Your task to perform on an android device: turn on location history Image 0: 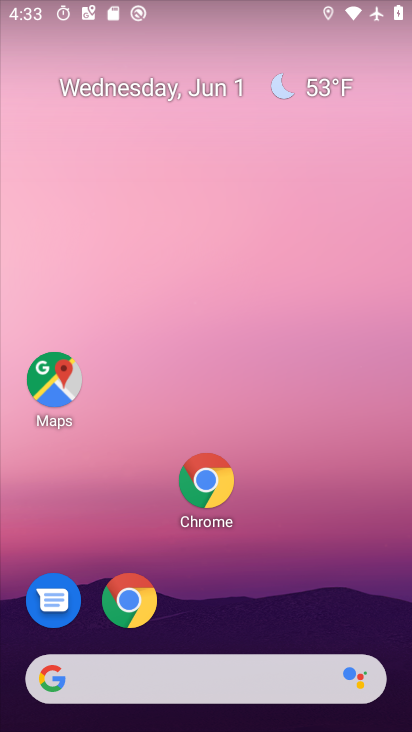
Step 0: drag from (324, 655) to (287, 258)
Your task to perform on an android device: turn on location history Image 1: 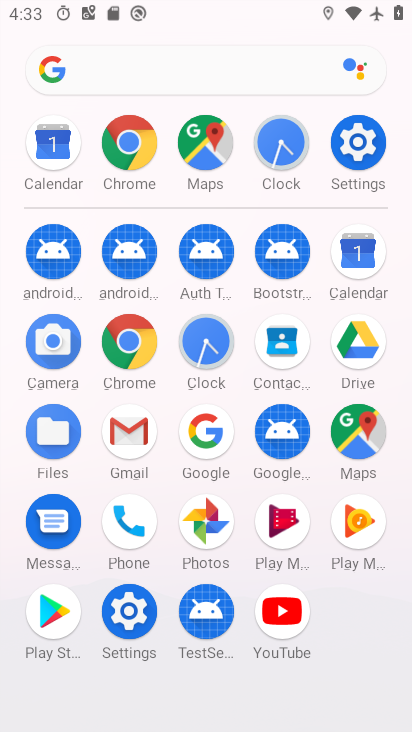
Step 1: click (366, 423)
Your task to perform on an android device: turn on location history Image 2: 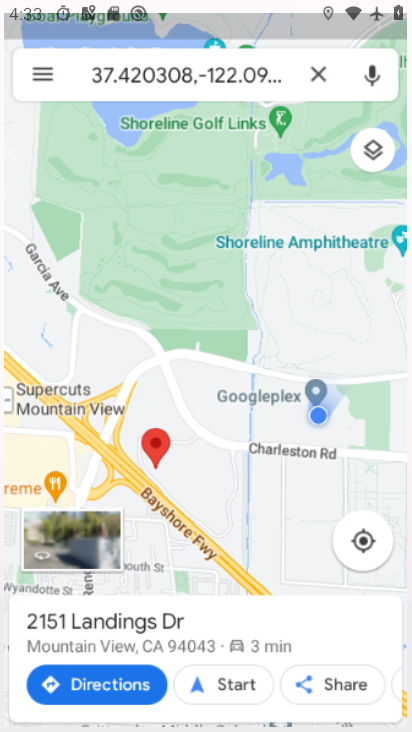
Step 2: click (352, 432)
Your task to perform on an android device: turn on location history Image 3: 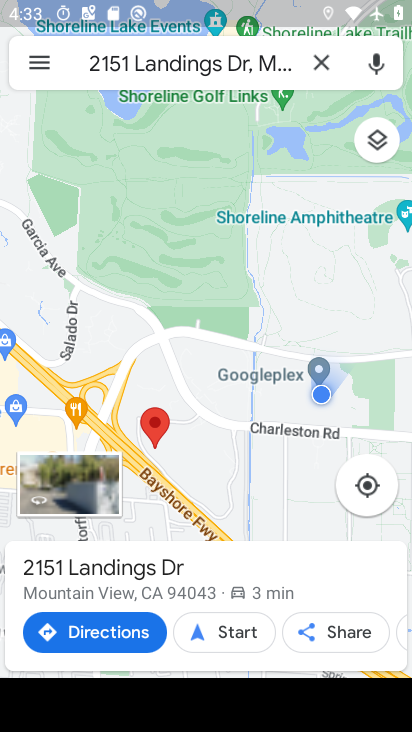
Step 3: click (308, 60)
Your task to perform on an android device: turn on location history Image 4: 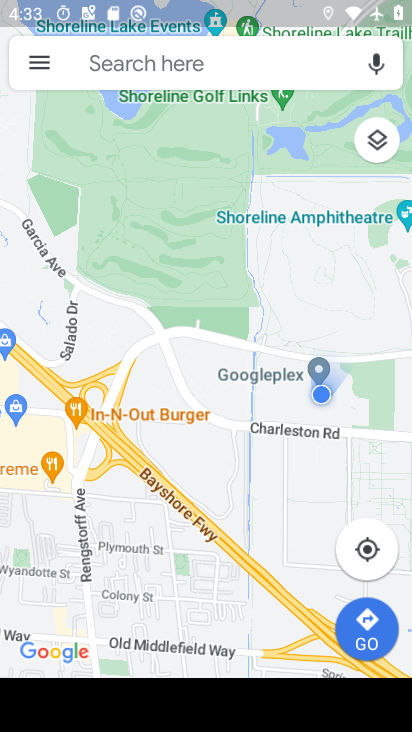
Step 4: click (80, 67)
Your task to perform on an android device: turn on location history Image 5: 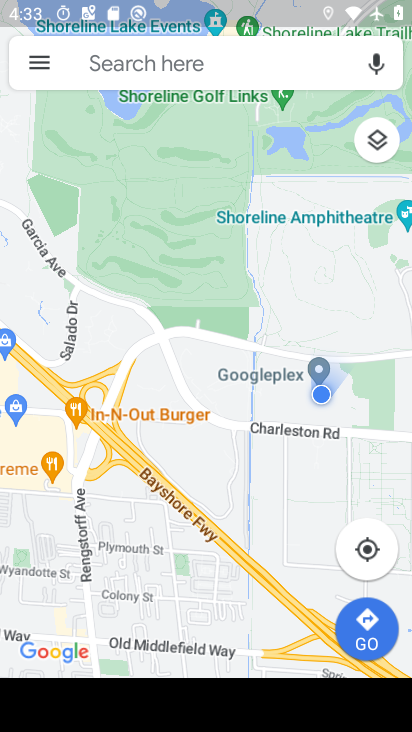
Step 5: click (80, 67)
Your task to perform on an android device: turn on location history Image 6: 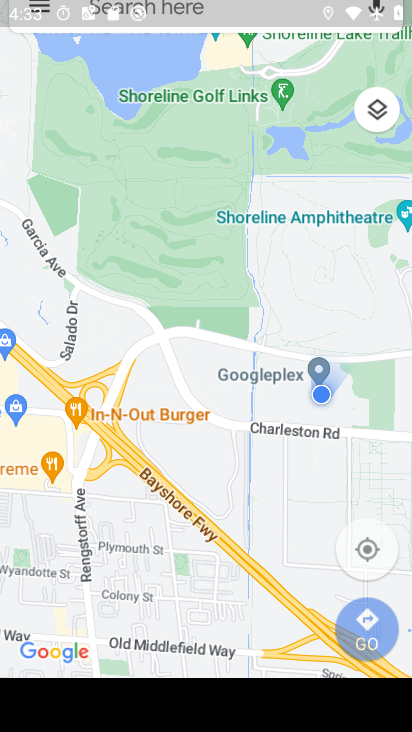
Step 6: click (81, 67)
Your task to perform on an android device: turn on location history Image 7: 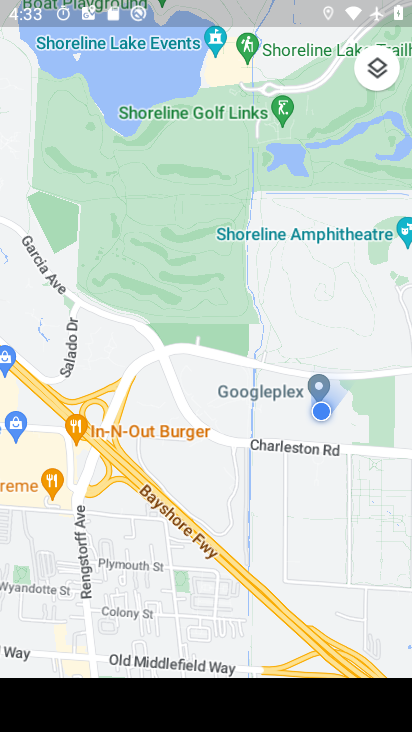
Step 7: drag from (109, 119) to (212, 396)
Your task to perform on an android device: turn on location history Image 8: 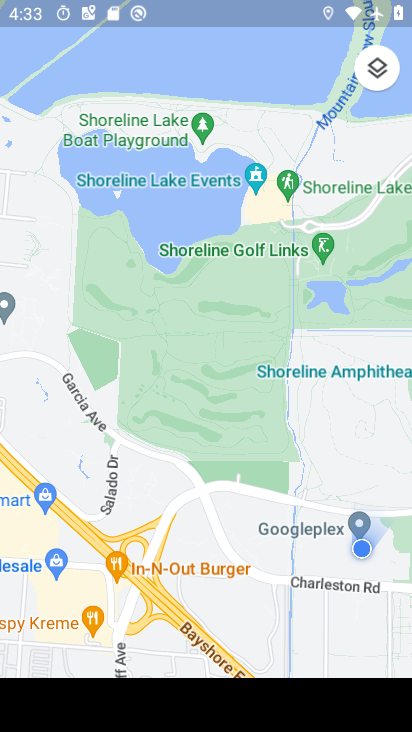
Step 8: drag from (188, 209) to (198, 418)
Your task to perform on an android device: turn on location history Image 9: 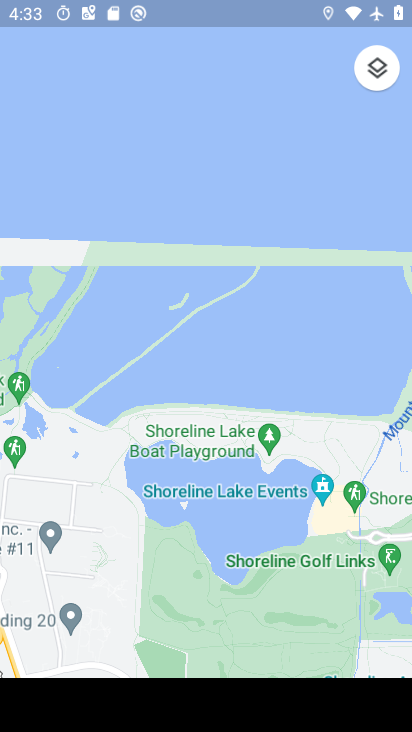
Step 9: drag from (172, 289) to (188, 416)
Your task to perform on an android device: turn on location history Image 10: 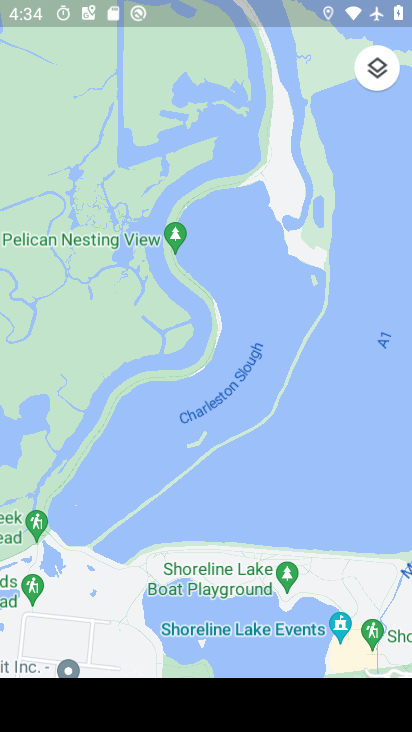
Step 10: drag from (152, 150) to (237, 590)
Your task to perform on an android device: turn on location history Image 11: 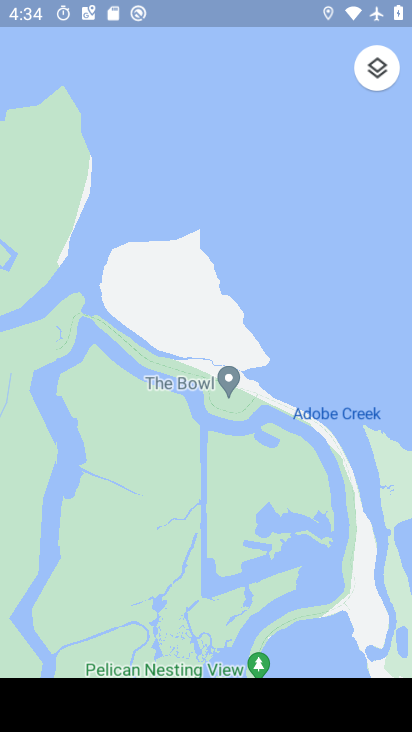
Step 11: drag from (220, 523) to (260, 602)
Your task to perform on an android device: turn on location history Image 12: 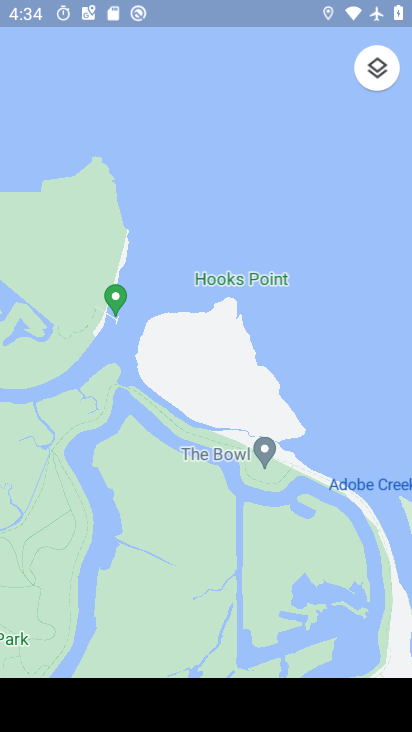
Step 12: drag from (159, 195) to (209, 377)
Your task to perform on an android device: turn on location history Image 13: 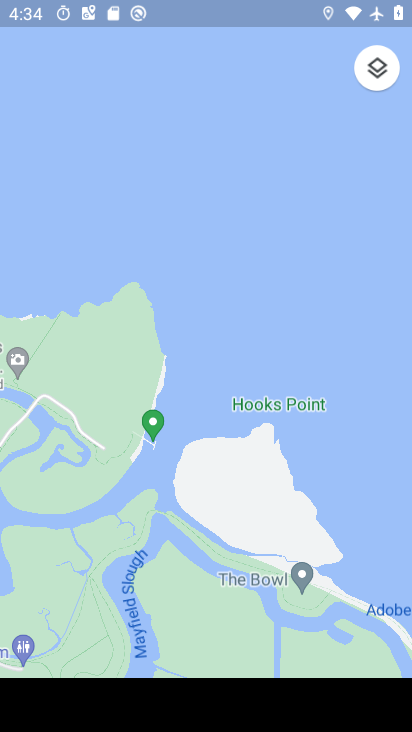
Step 13: drag from (171, 279) to (214, 450)
Your task to perform on an android device: turn on location history Image 14: 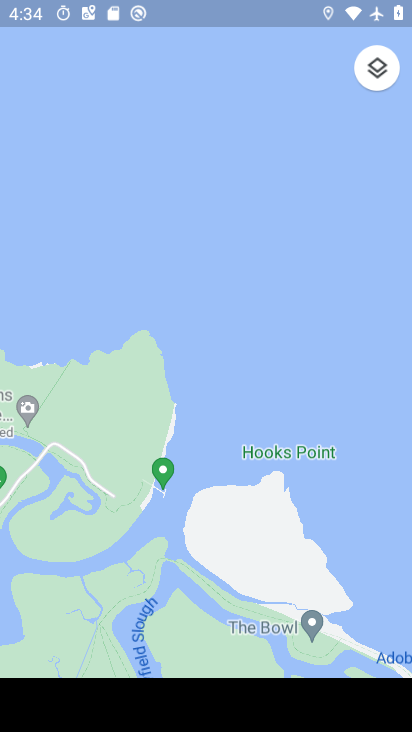
Step 14: drag from (115, 147) to (211, 404)
Your task to perform on an android device: turn on location history Image 15: 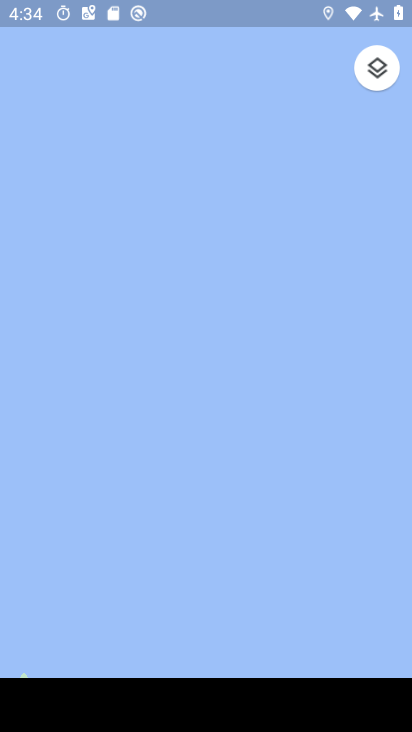
Step 15: drag from (137, 161) to (166, 547)
Your task to perform on an android device: turn on location history Image 16: 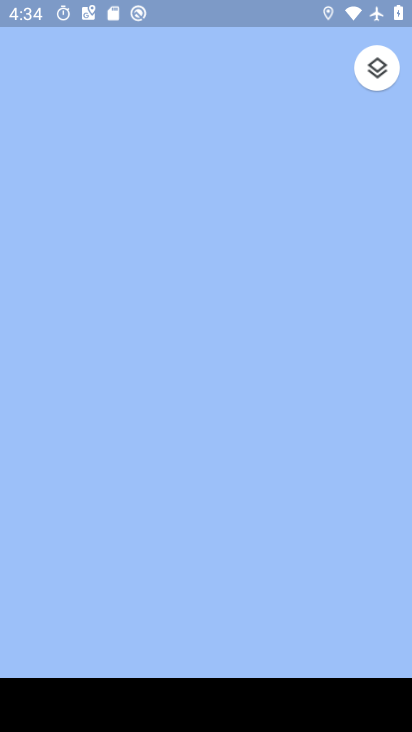
Step 16: drag from (131, 299) to (169, 605)
Your task to perform on an android device: turn on location history Image 17: 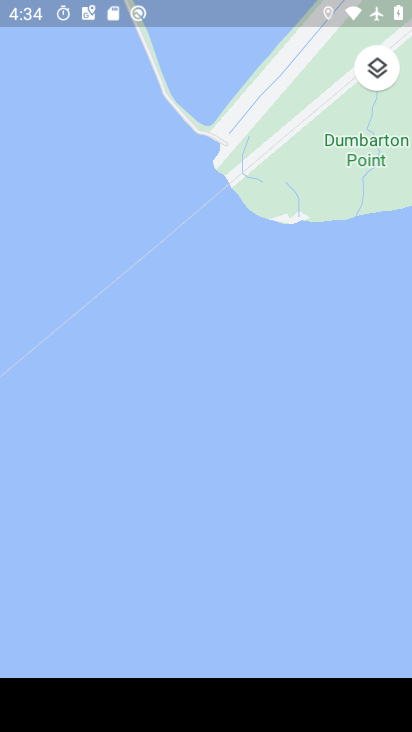
Step 17: drag from (57, 144) to (219, 567)
Your task to perform on an android device: turn on location history Image 18: 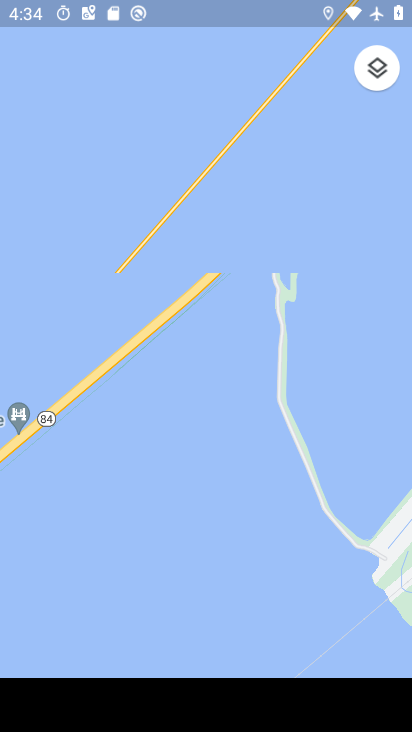
Step 18: drag from (217, 440) to (217, 653)
Your task to perform on an android device: turn on location history Image 19: 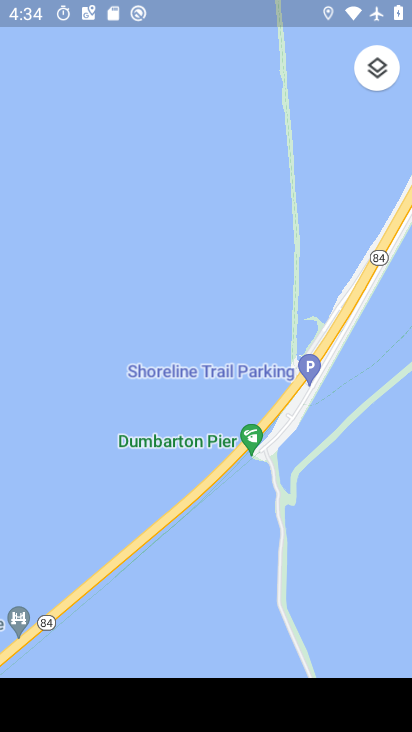
Step 19: drag from (104, 322) to (153, 636)
Your task to perform on an android device: turn on location history Image 20: 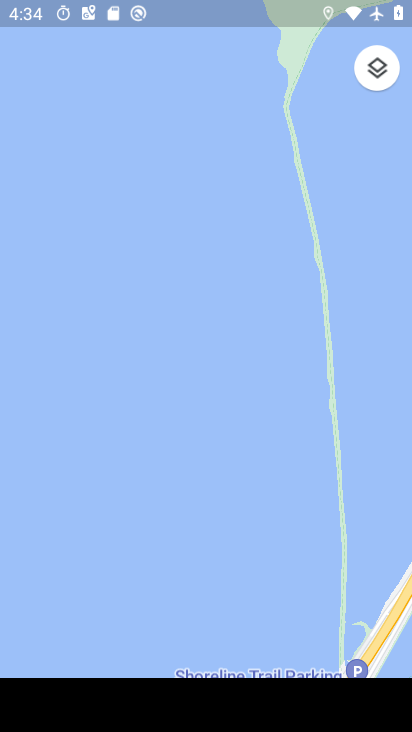
Step 20: drag from (125, 459) to (146, 522)
Your task to perform on an android device: turn on location history Image 21: 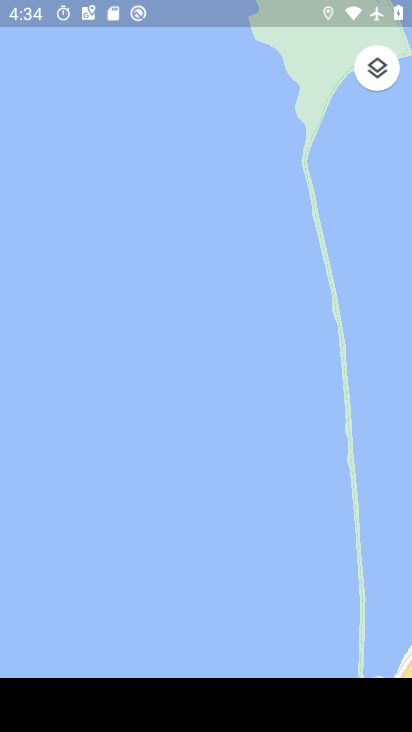
Step 21: drag from (107, 145) to (250, 527)
Your task to perform on an android device: turn on location history Image 22: 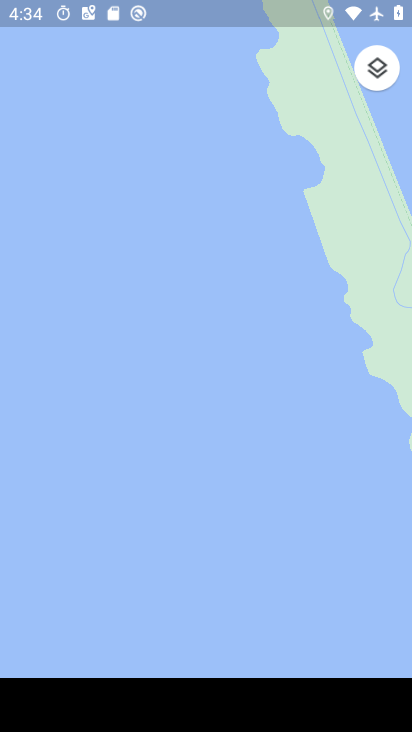
Step 22: drag from (186, 154) to (301, 474)
Your task to perform on an android device: turn on location history Image 23: 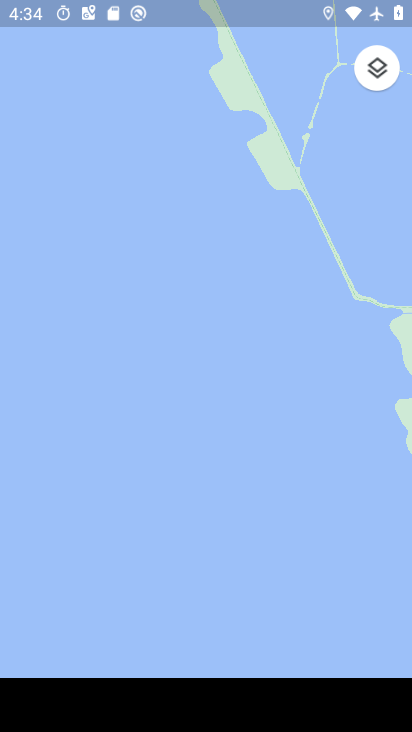
Step 23: drag from (217, 59) to (343, 330)
Your task to perform on an android device: turn on location history Image 24: 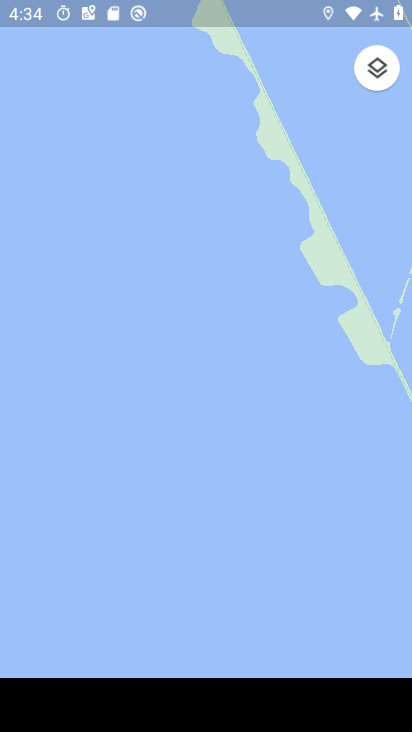
Step 24: drag from (240, 50) to (302, 382)
Your task to perform on an android device: turn on location history Image 25: 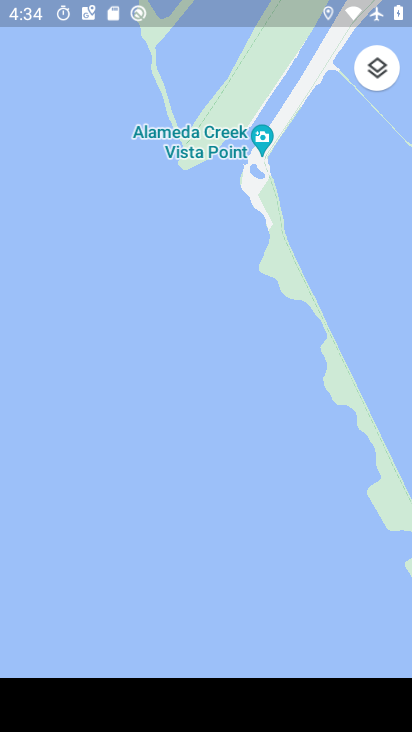
Step 25: drag from (255, 89) to (295, 331)
Your task to perform on an android device: turn on location history Image 26: 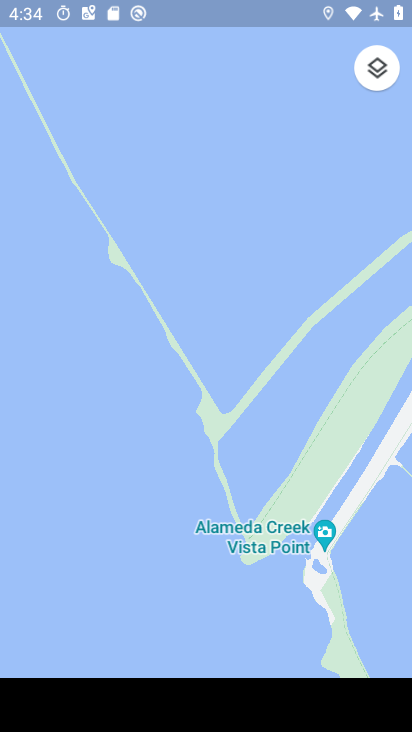
Step 26: drag from (141, 59) to (171, 377)
Your task to perform on an android device: turn on location history Image 27: 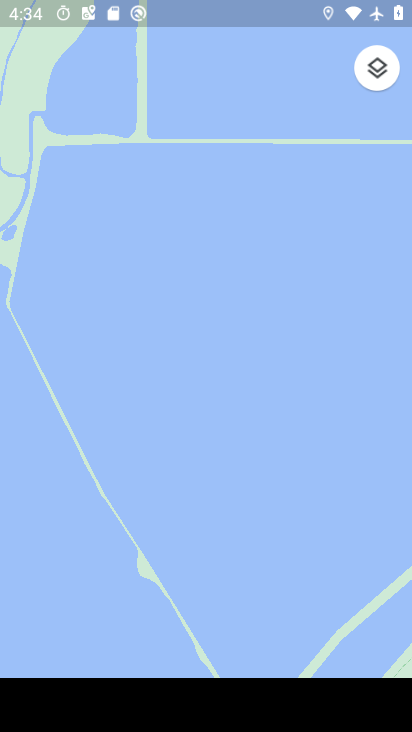
Step 27: drag from (118, 305) to (138, 427)
Your task to perform on an android device: turn on location history Image 28: 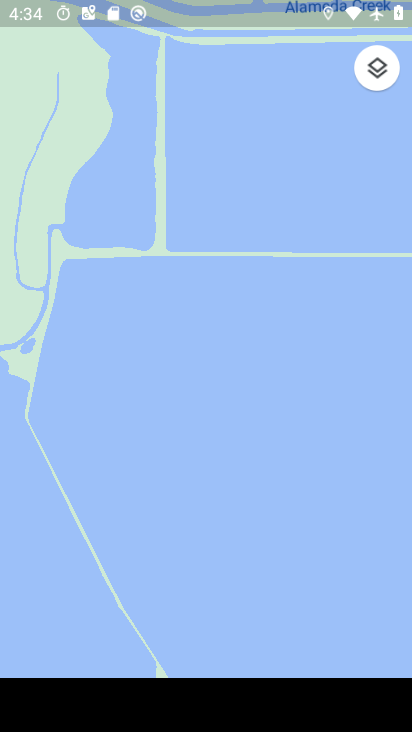
Step 28: drag from (139, 288) to (182, 398)
Your task to perform on an android device: turn on location history Image 29: 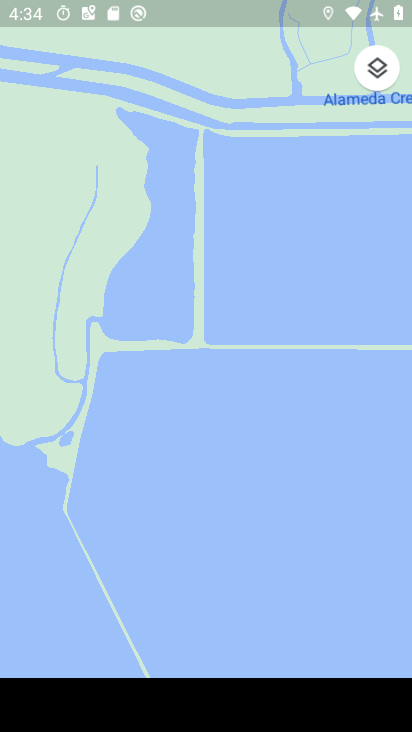
Step 29: drag from (125, 306) to (167, 476)
Your task to perform on an android device: turn on location history Image 30: 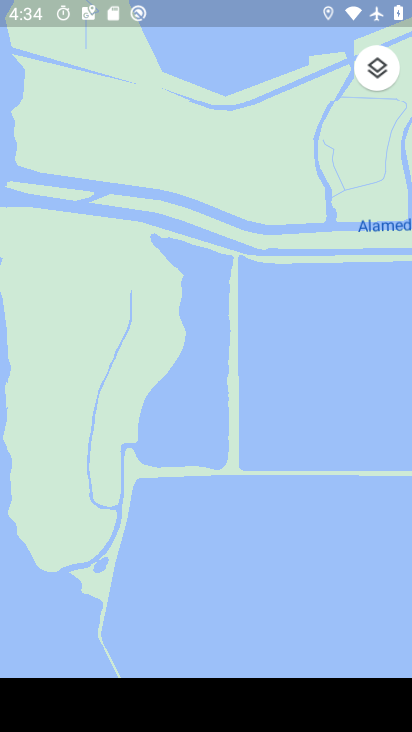
Step 30: drag from (110, 156) to (199, 469)
Your task to perform on an android device: turn on location history Image 31: 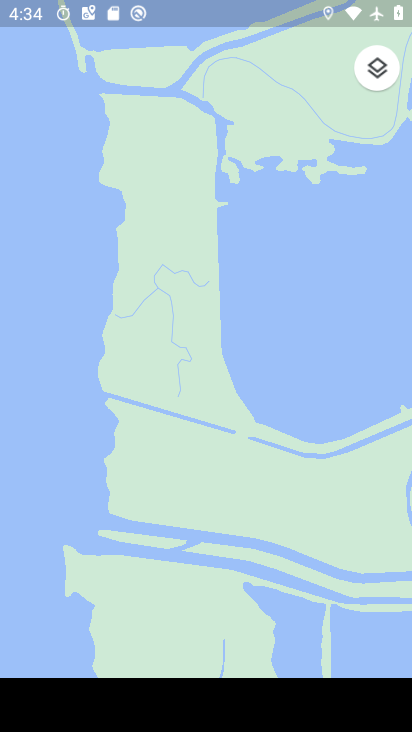
Step 31: drag from (107, 136) to (209, 626)
Your task to perform on an android device: turn on location history Image 32: 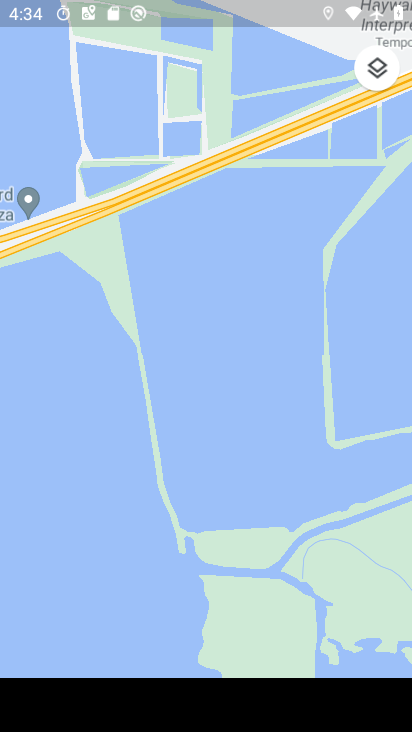
Step 32: drag from (129, 211) to (337, 543)
Your task to perform on an android device: turn on location history Image 33: 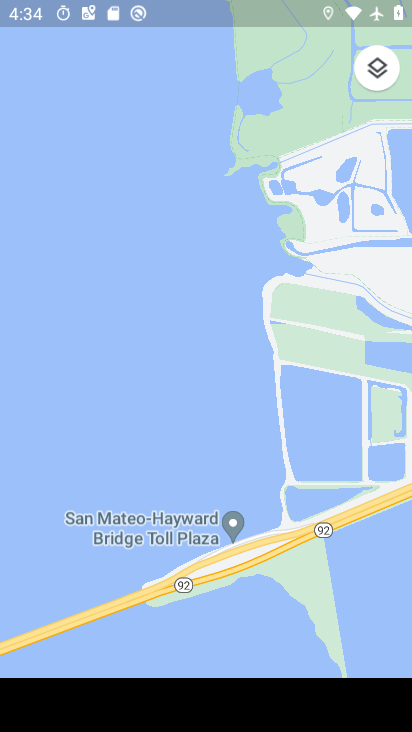
Step 33: press back button
Your task to perform on an android device: turn on location history Image 34: 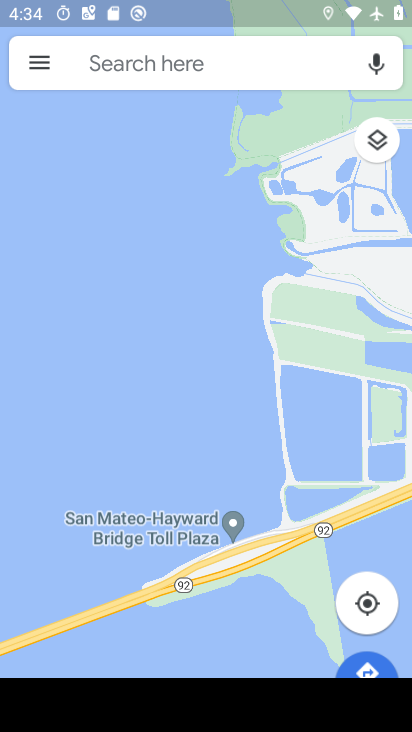
Step 34: click (90, 52)
Your task to perform on an android device: turn on location history Image 35: 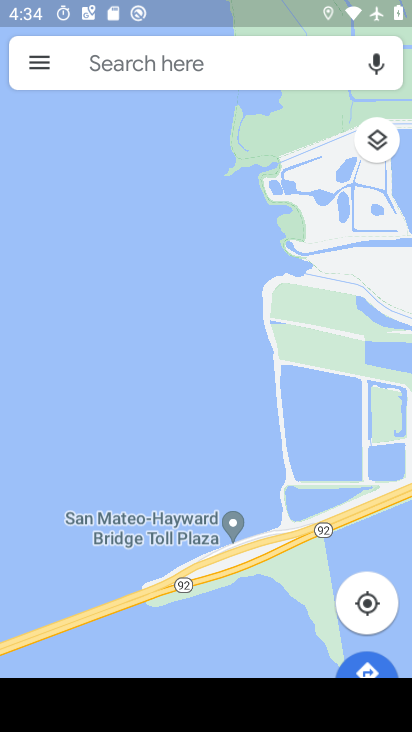
Step 35: click (90, 54)
Your task to perform on an android device: turn on location history Image 36: 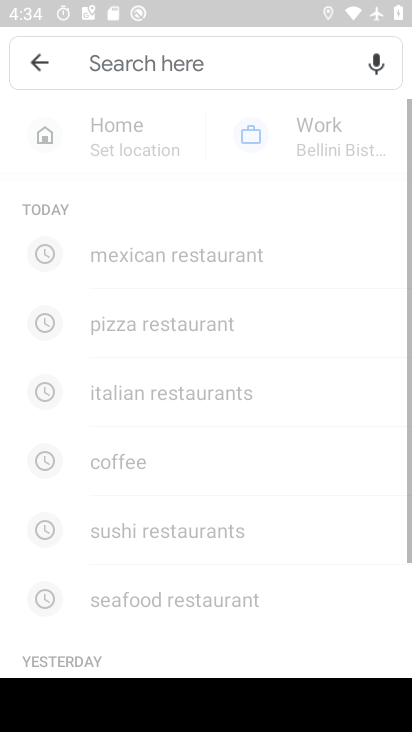
Step 36: click (90, 54)
Your task to perform on an android device: turn on location history Image 37: 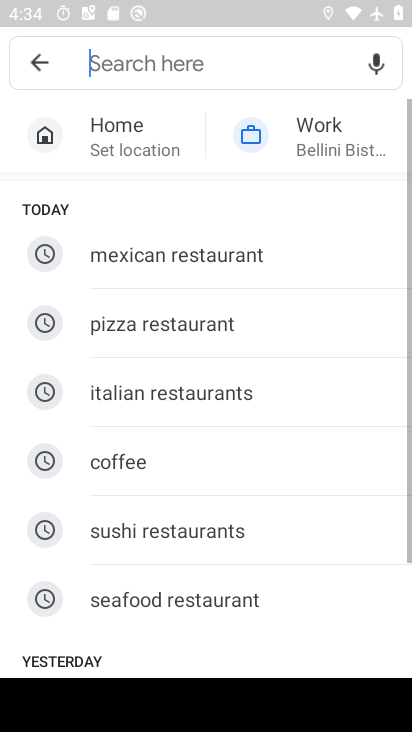
Step 37: click (90, 56)
Your task to perform on an android device: turn on location history Image 38: 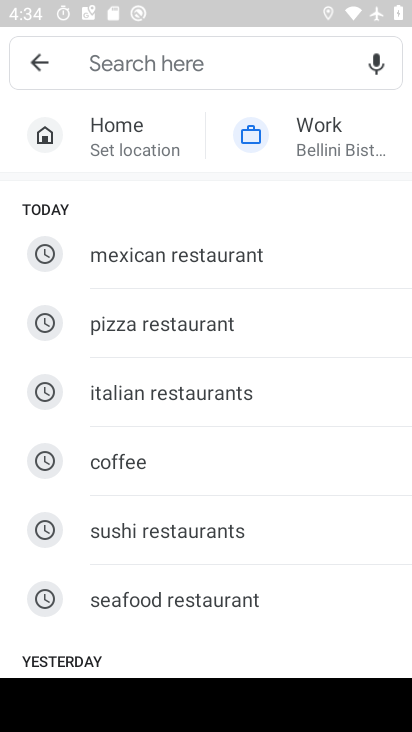
Step 38: click (34, 61)
Your task to perform on an android device: turn on location history Image 39: 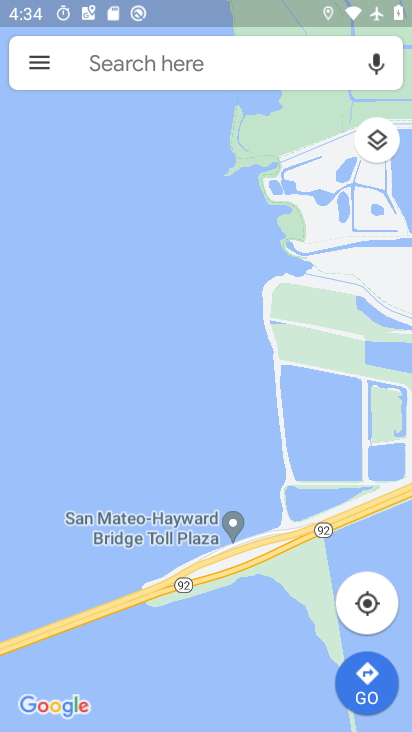
Step 39: click (37, 69)
Your task to perform on an android device: turn on location history Image 40: 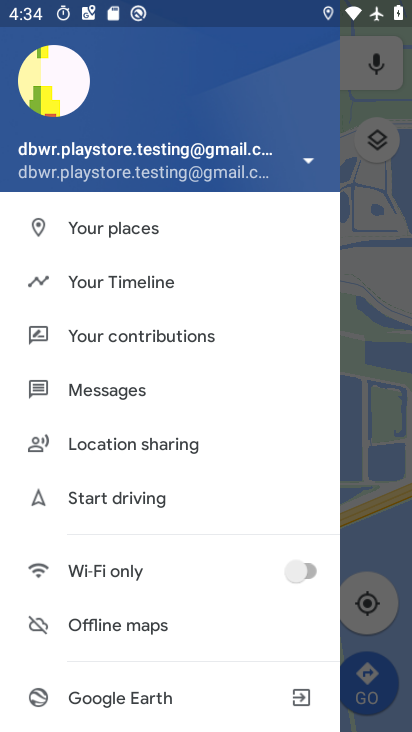
Step 40: drag from (161, 587) to (155, 192)
Your task to perform on an android device: turn on location history Image 41: 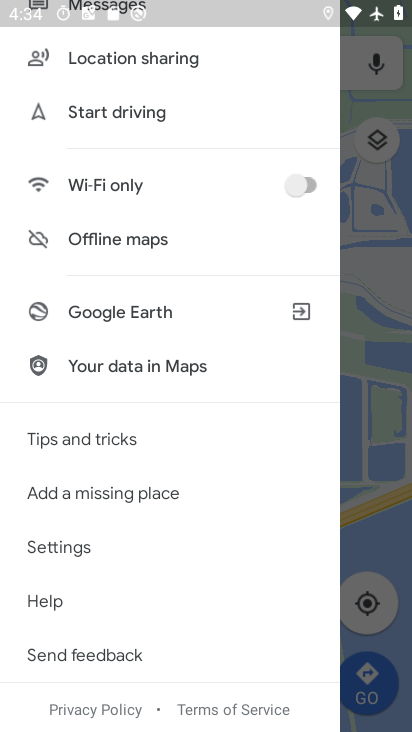
Step 41: drag from (131, 153) to (198, 588)
Your task to perform on an android device: turn on location history Image 42: 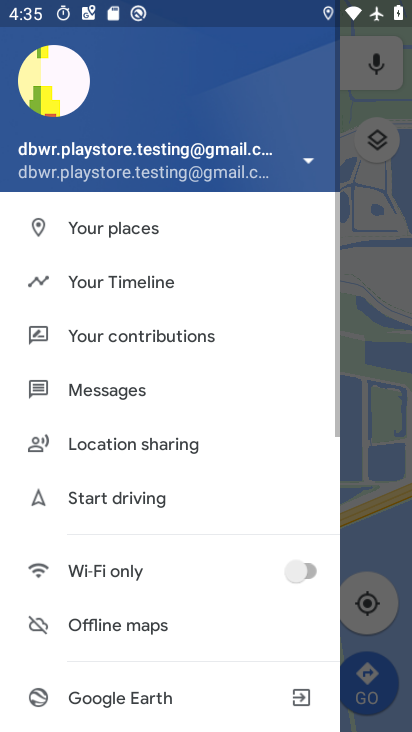
Step 42: drag from (189, 253) to (199, 518)
Your task to perform on an android device: turn on location history Image 43: 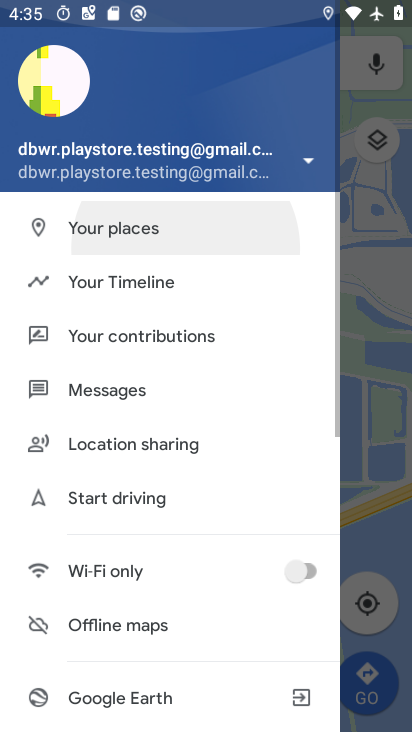
Step 43: drag from (137, 106) to (181, 357)
Your task to perform on an android device: turn on location history Image 44: 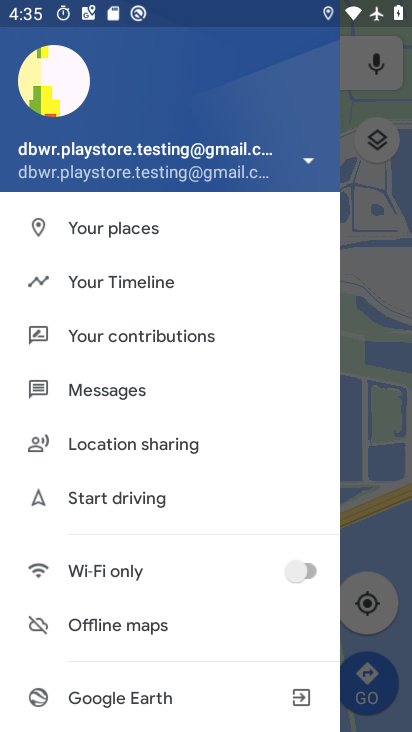
Step 44: click (117, 279)
Your task to perform on an android device: turn on location history Image 45: 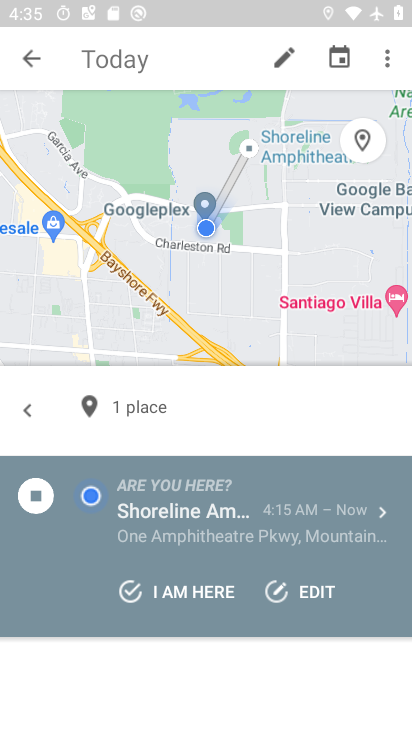
Step 45: drag from (389, 65) to (257, 385)
Your task to perform on an android device: turn on location history Image 46: 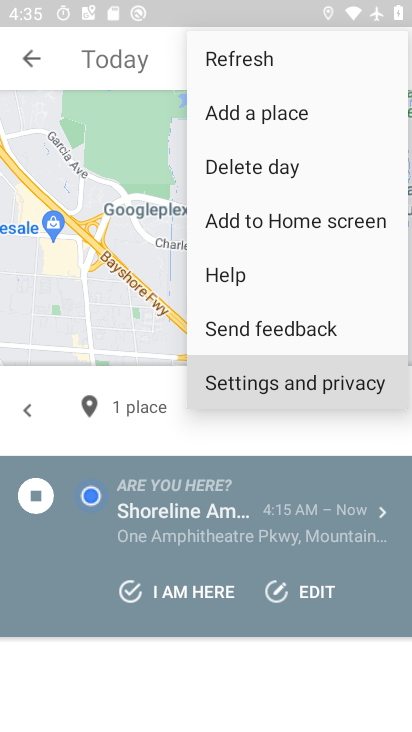
Step 46: click (257, 385)
Your task to perform on an android device: turn on location history Image 47: 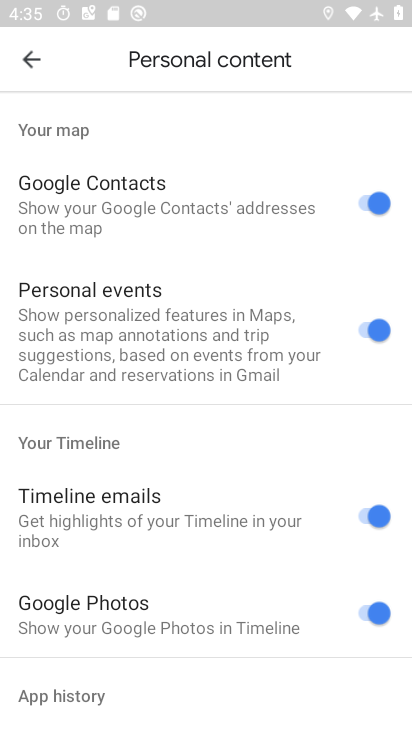
Step 47: task complete